Your task to perform on an android device: stop showing notifications on the lock screen Image 0: 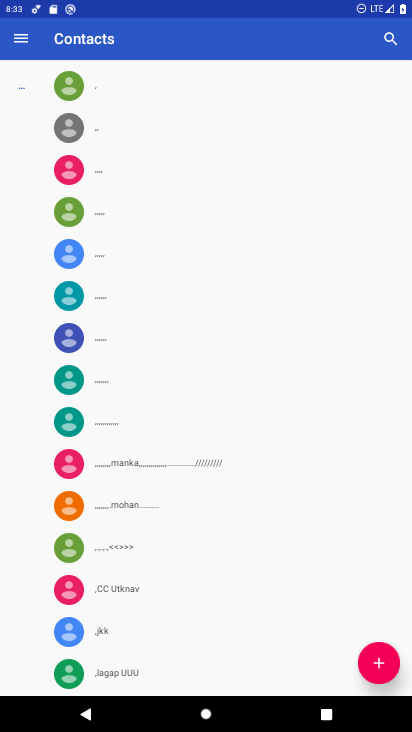
Step 0: press home button
Your task to perform on an android device: stop showing notifications on the lock screen Image 1: 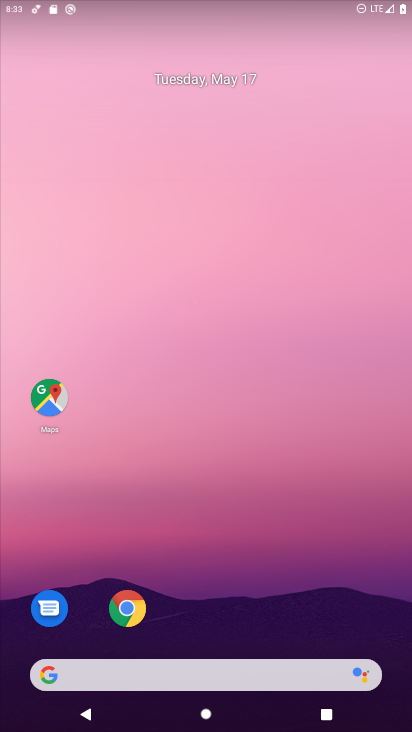
Step 1: drag from (202, 587) to (242, 51)
Your task to perform on an android device: stop showing notifications on the lock screen Image 2: 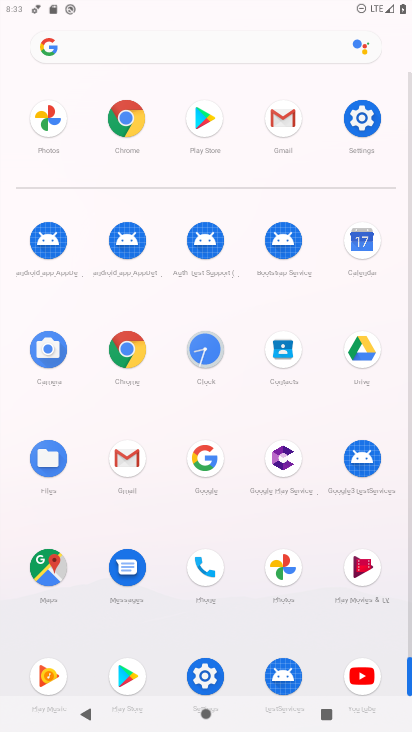
Step 2: click (365, 120)
Your task to perform on an android device: stop showing notifications on the lock screen Image 3: 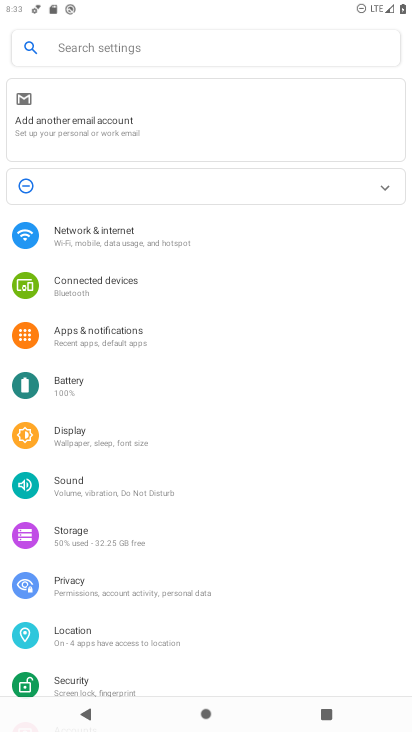
Step 3: click (121, 330)
Your task to perform on an android device: stop showing notifications on the lock screen Image 4: 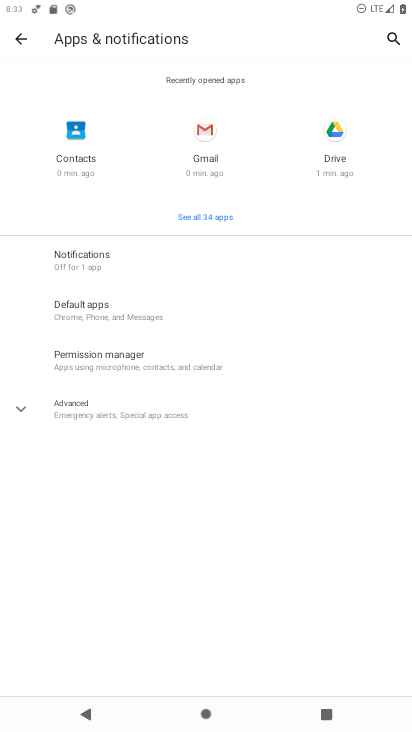
Step 4: click (101, 267)
Your task to perform on an android device: stop showing notifications on the lock screen Image 5: 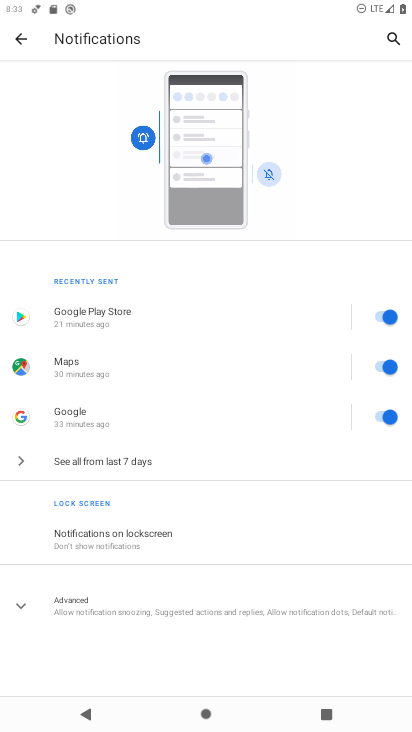
Step 5: click (81, 542)
Your task to perform on an android device: stop showing notifications on the lock screen Image 6: 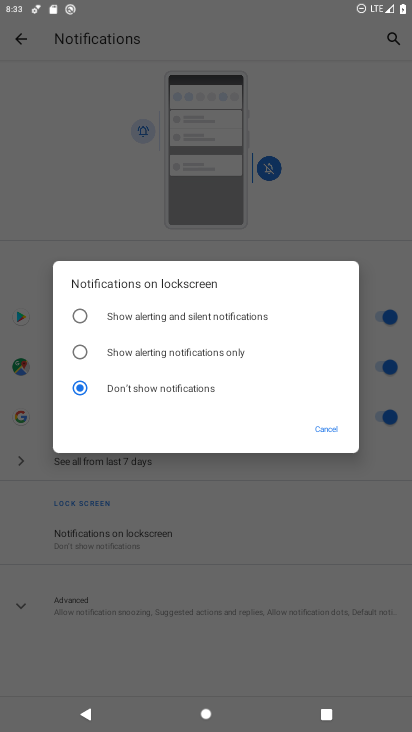
Step 6: task complete